Your task to perform on an android device: What's on my calendar tomorrow? Image 0: 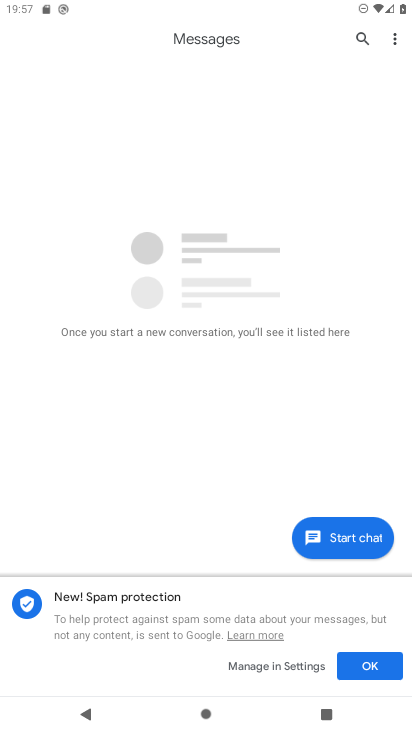
Step 0: press home button
Your task to perform on an android device: What's on my calendar tomorrow? Image 1: 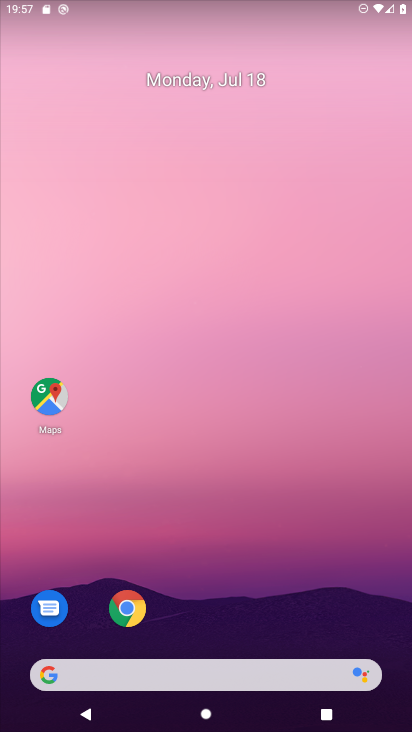
Step 1: drag from (236, 614) to (231, 95)
Your task to perform on an android device: What's on my calendar tomorrow? Image 2: 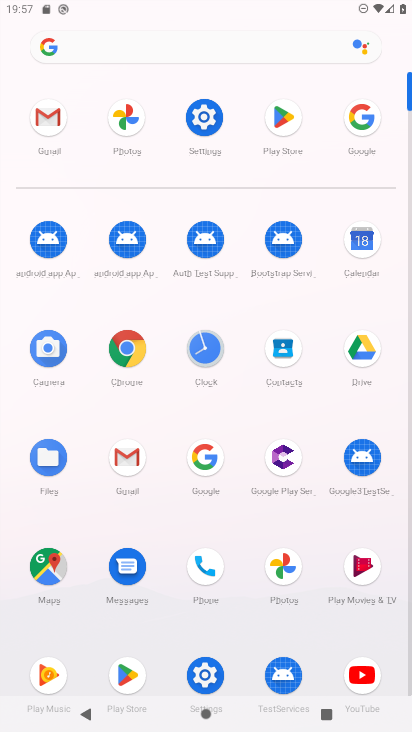
Step 2: click (360, 242)
Your task to perform on an android device: What's on my calendar tomorrow? Image 3: 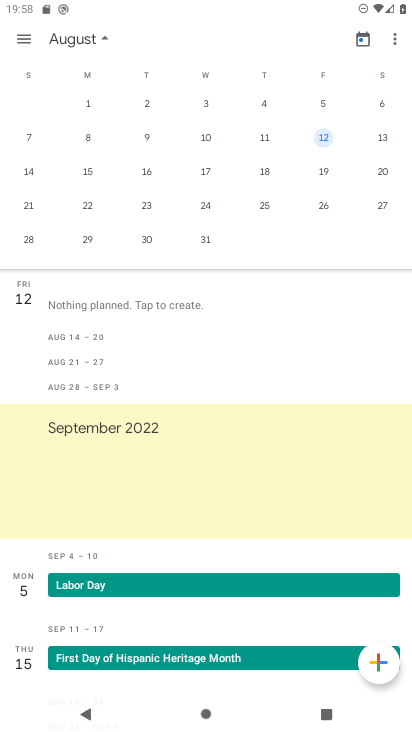
Step 3: drag from (45, 211) to (397, 210)
Your task to perform on an android device: What's on my calendar tomorrow? Image 4: 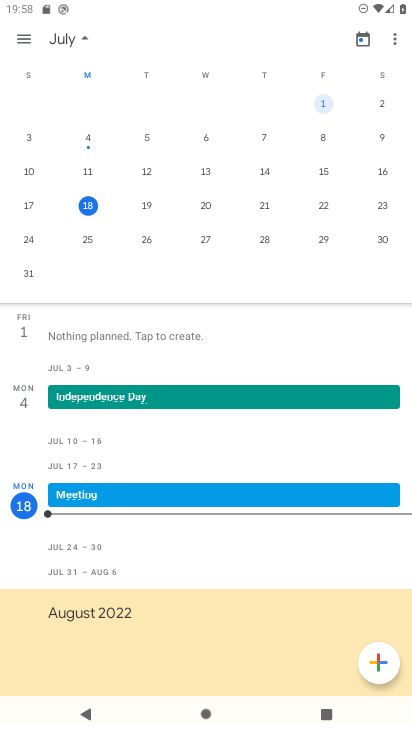
Step 4: click (146, 206)
Your task to perform on an android device: What's on my calendar tomorrow? Image 5: 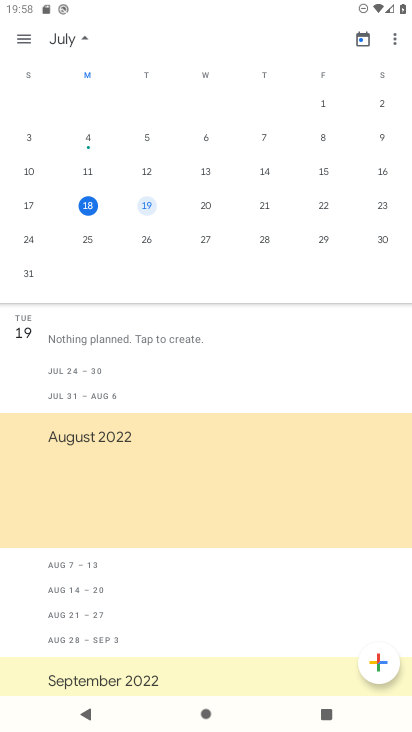
Step 5: task complete